Your task to perform on an android device: delete location history Image 0: 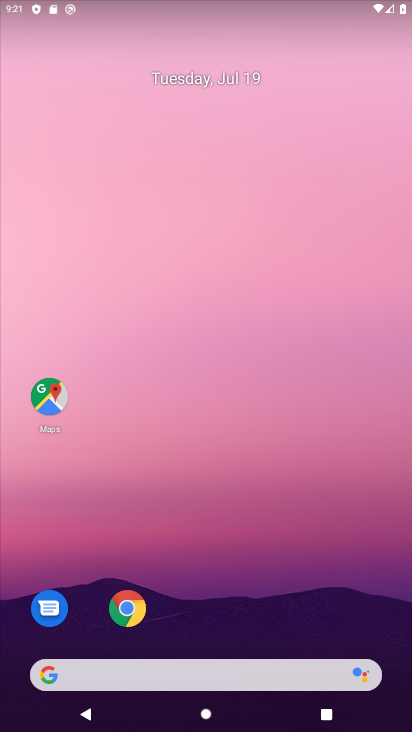
Step 0: click (46, 406)
Your task to perform on an android device: delete location history Image 1: 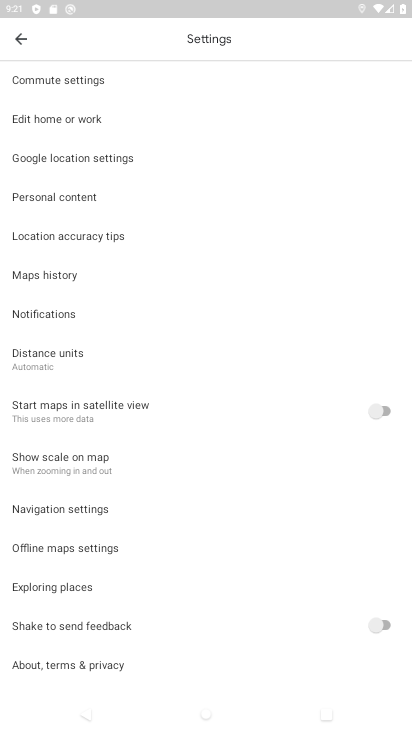
Step 1: click (18, 32)
Your task to perform on an android device: delete location history Image 2: 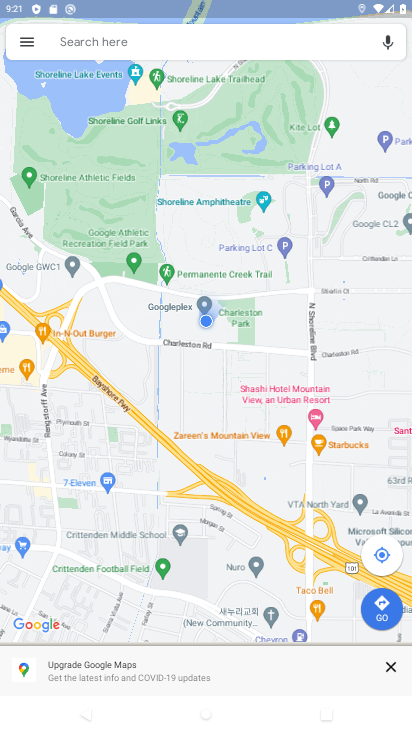
Step 2: click (18, 32)
Your task to perform on an android device: delete location history Image 3: 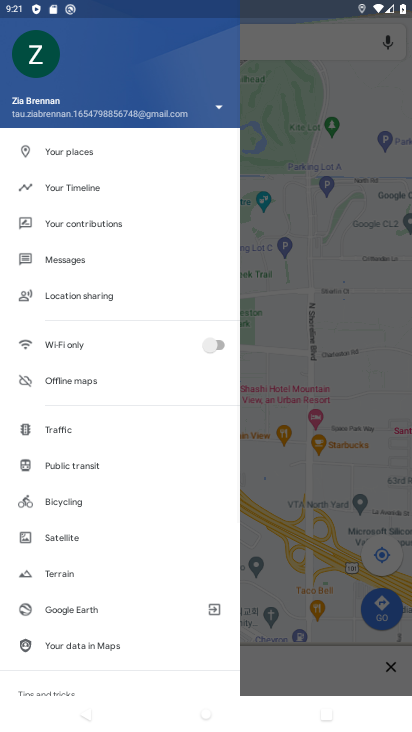
Step 3: click (58, 182)
Your task to perform on an android device: delete location history Image 4: 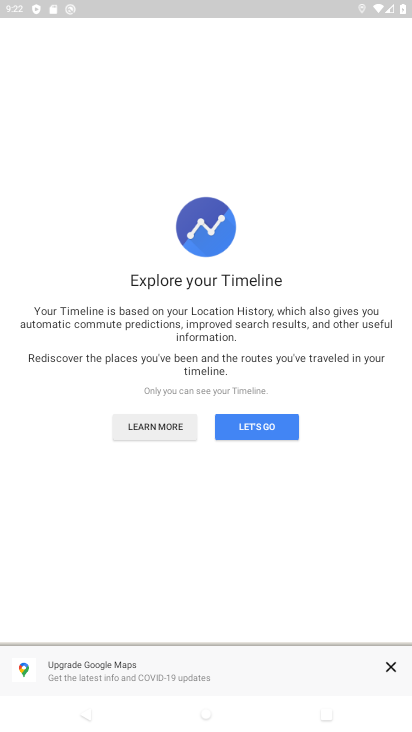
Step 4: click (247, 426)
Your task to perform on an android device: delete location history Image 5: 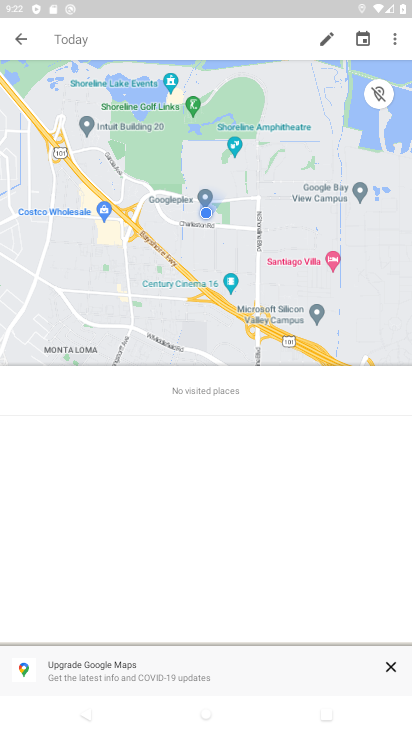
Step 5: click (395, 37)
Your task to perform on an android device: delete location history Image 6: 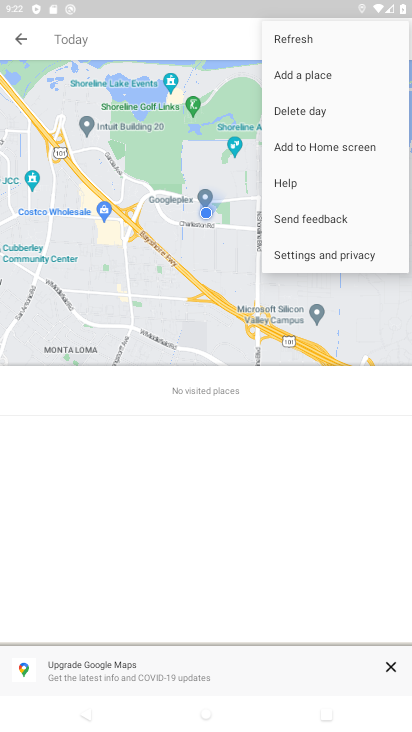
Step 6: click (314, 252)
Your task to perform on an android device: delete location history Image 7: 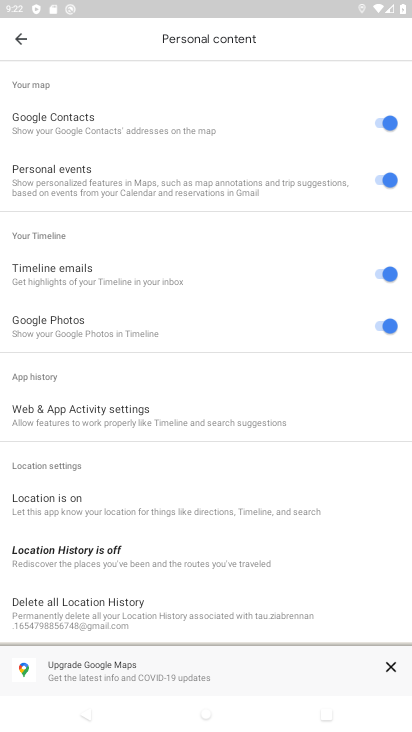
Step 7: click (99, 598)
Your task to perform on an android device: delete location history Image 8: 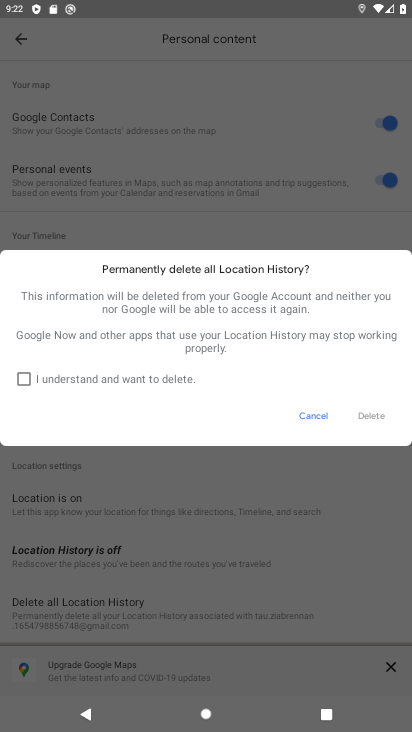
Step 8: click (24, 383)
Your task to perform on an android device: delete location history Image 9: 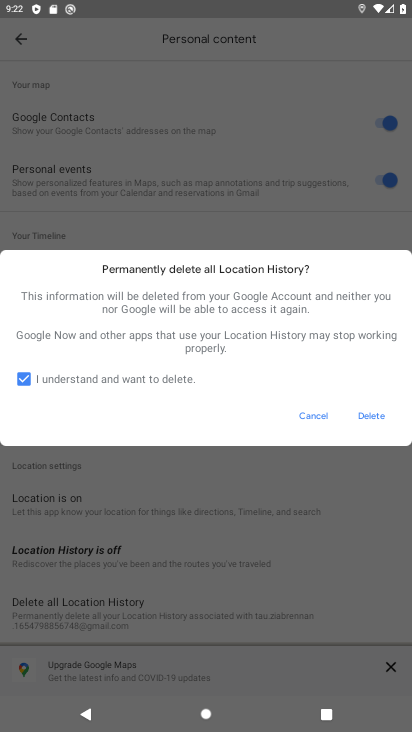
Step 9: click (367, 410)
Your task to perform on an android device: delete location history Image 10: 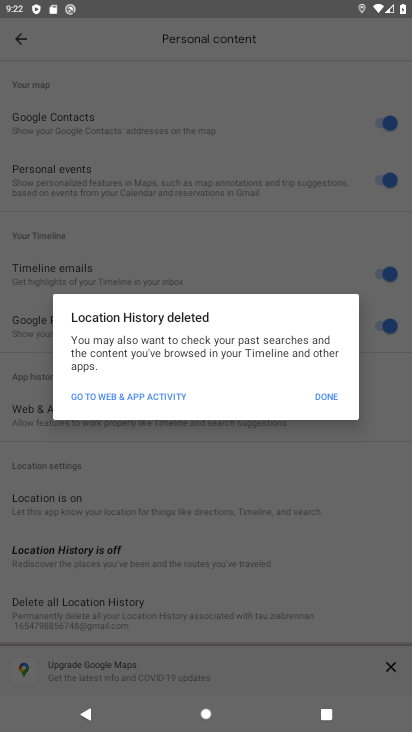
Step 10: click (326, 393)
Your task to perform on an android device: delete location history Image 11: 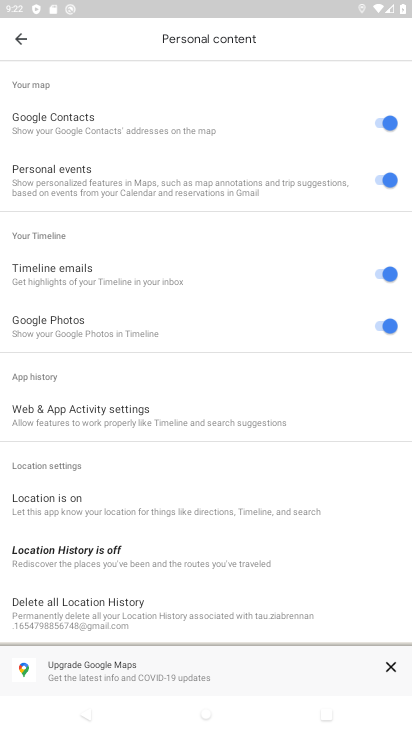
Step 11: task complete